Your task to perform on an android device: open app "Grab" (install if not already installed) Image 0: 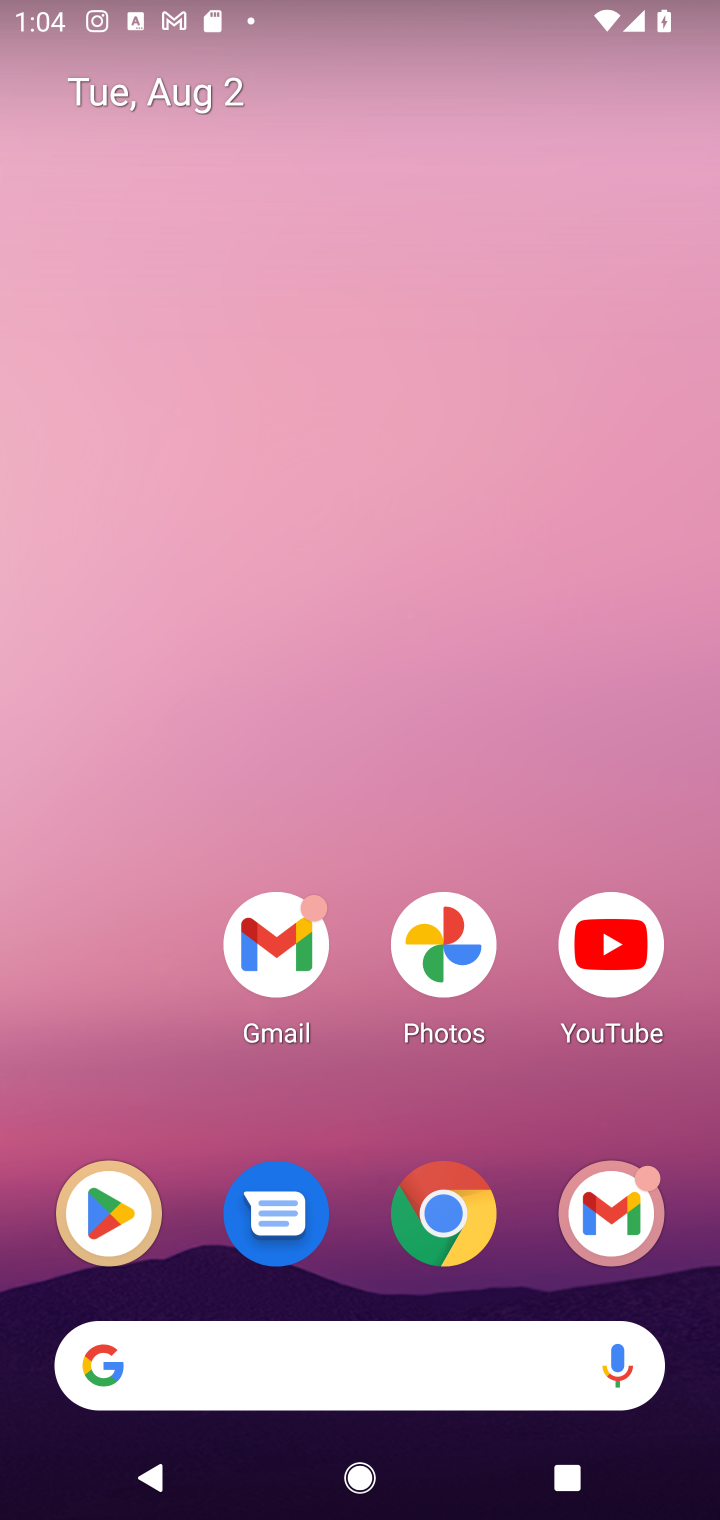
Step 0: click (109, 1184)
Your task to perform on an android device: open app "Grab" (install if not already installed) Image 1: 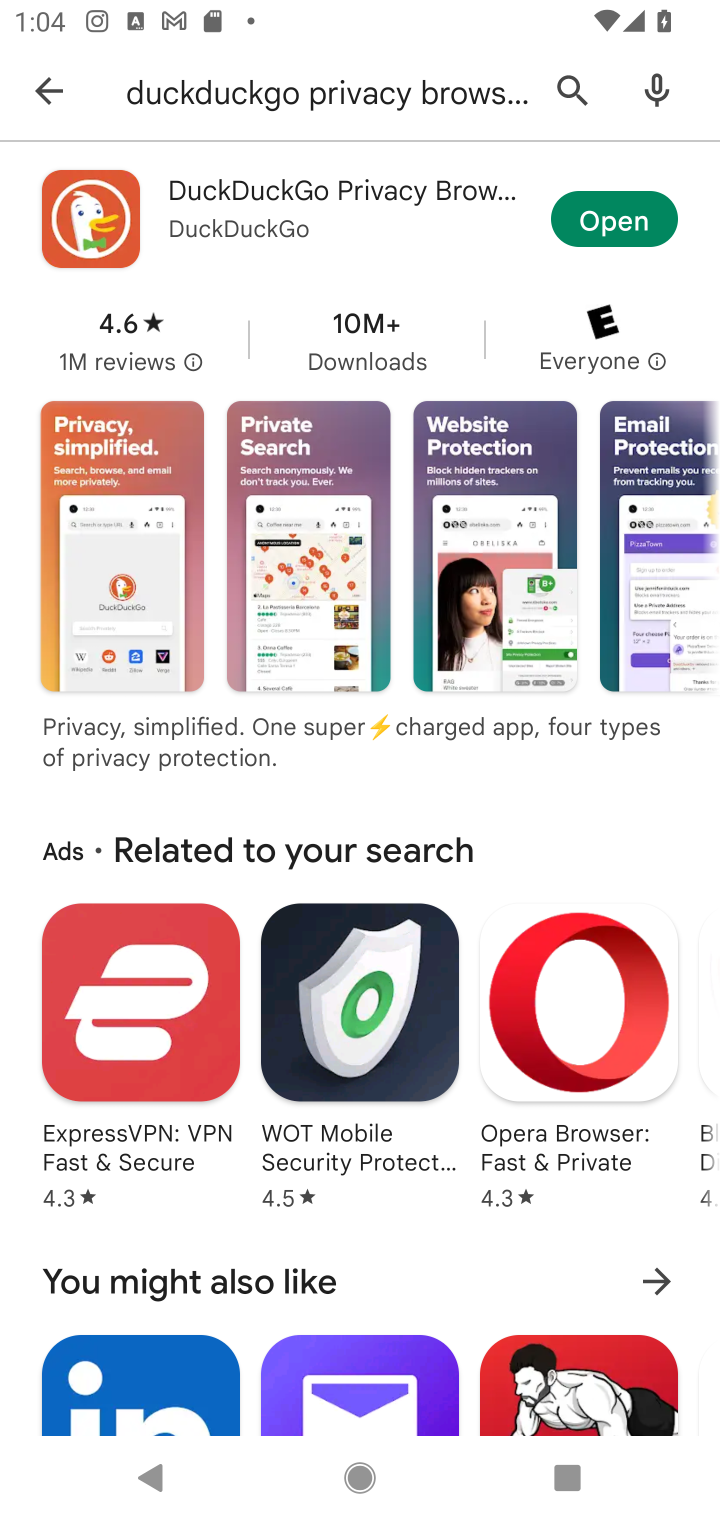
Step 1: click (61, 97)
Your task to perform on an android device: open app "Grab" (install if not already installed) Image 2: 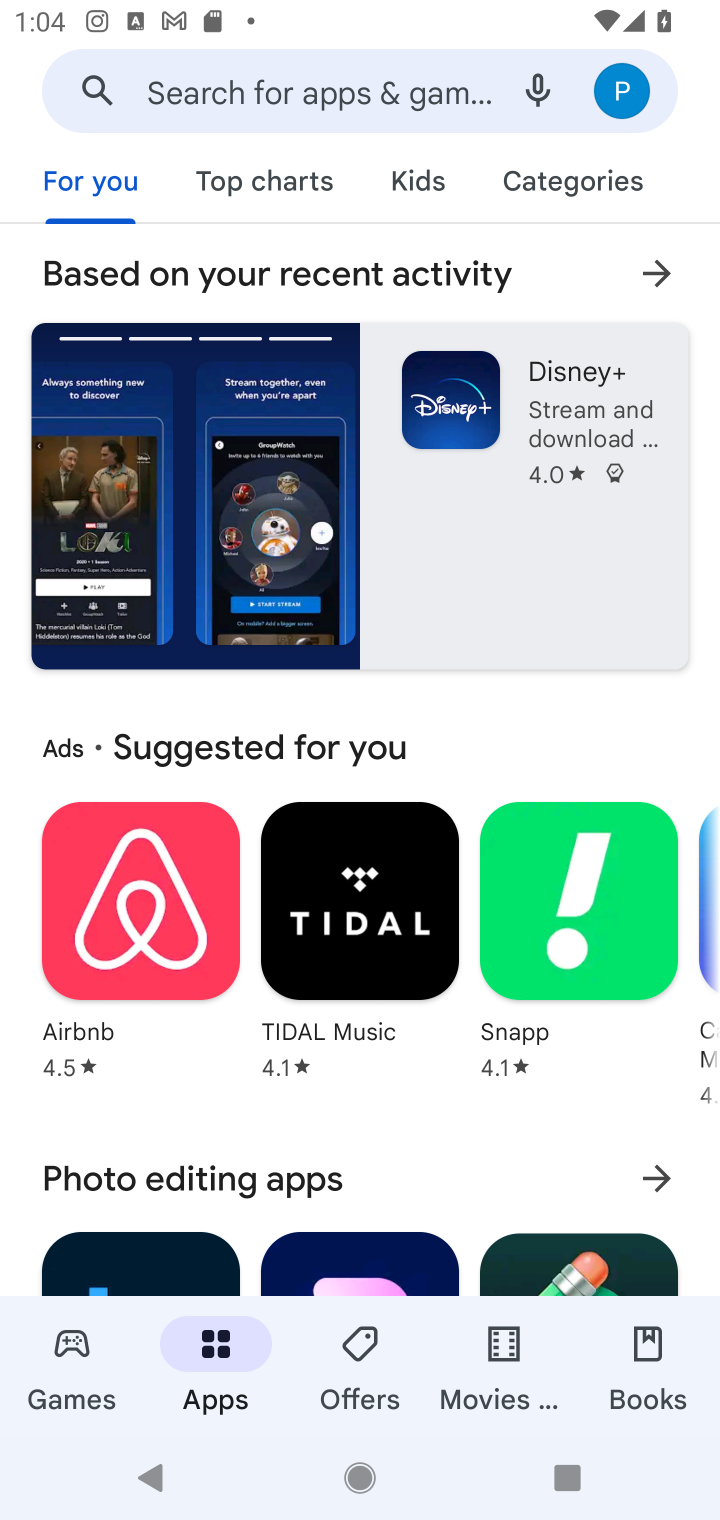
Step 2: click (371, 64)
Your task to perform on an android device: open app "Grab" (install if not already installed) Image 3: 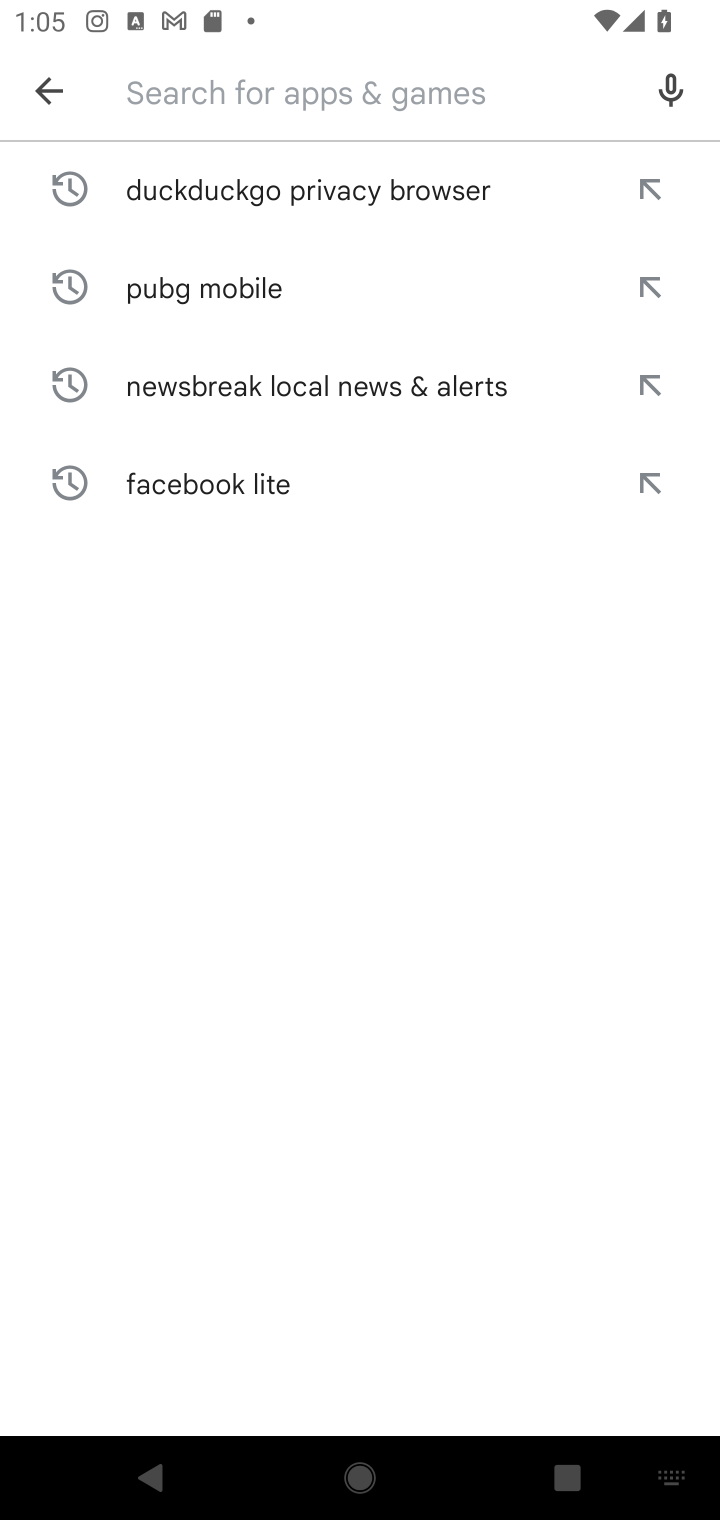
Step 3: type "Grab"
Your task to perform on an android device: open app "Grab" (install if not already installed) Image 4: 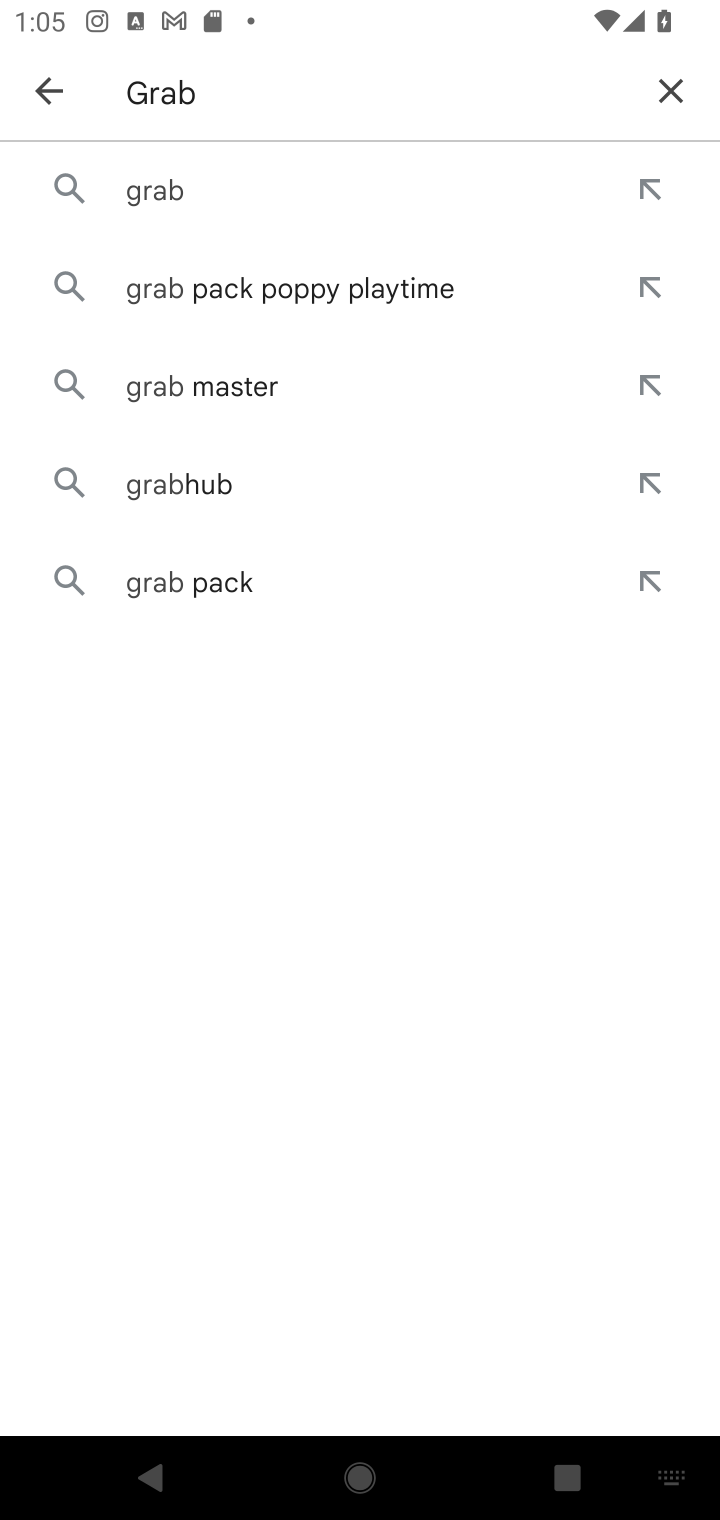
Step 4: click (134, 170)
Your task to perform on an android device: open app "Grab" (install if not already installed) Image 5: 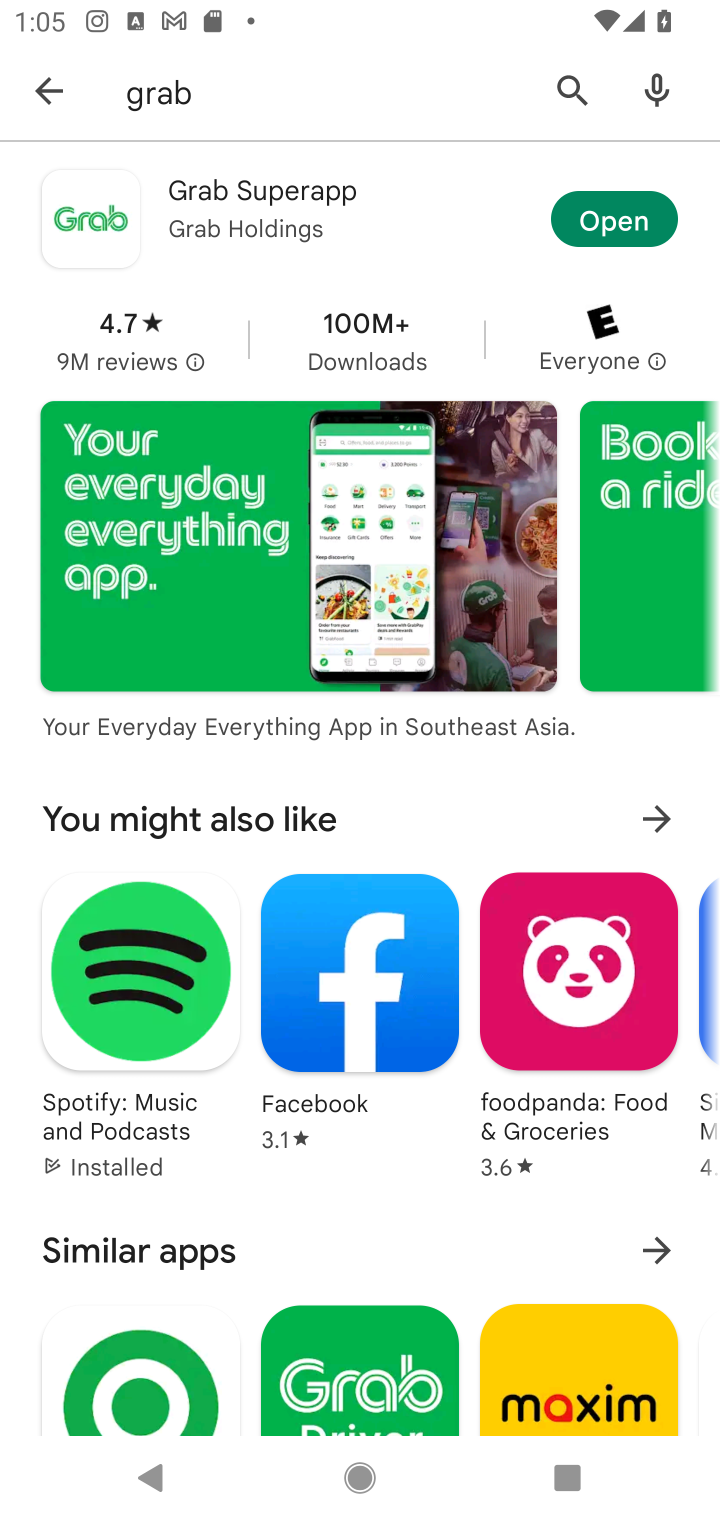
Step 5: click (596, 218)
Your task to perform on an android device: open app "Grab" (install if not already installed) Image 6: 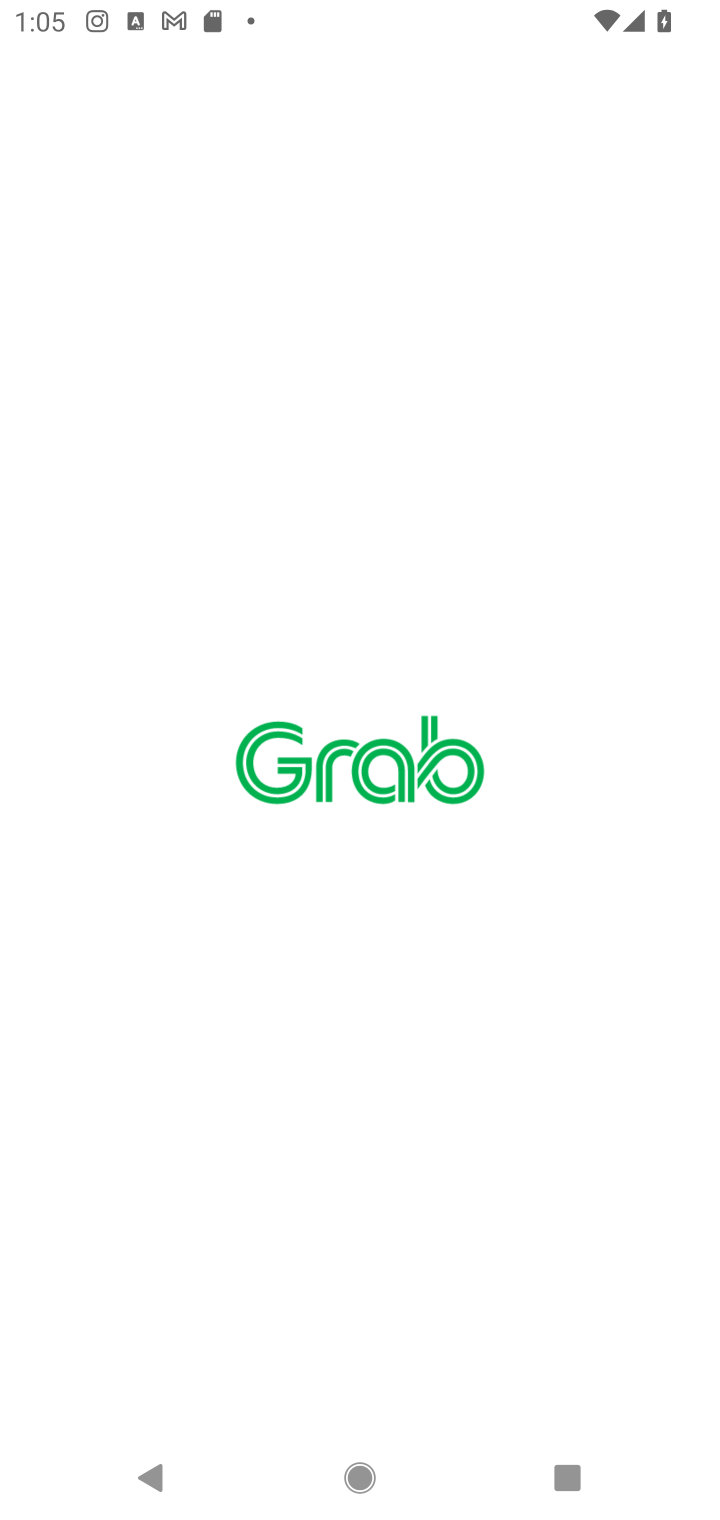
Step 6: task complete